Your task to perform on an android device: delete a single message in the gmail app Image 0: 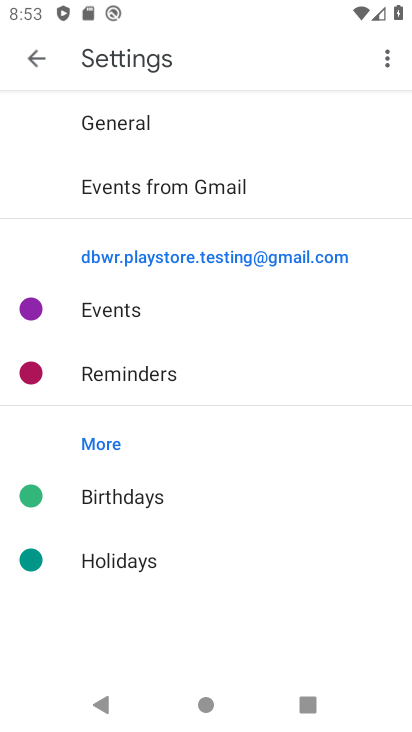
Step 0: press home button
Your task to perform on an android device: delete a single message in the gmail app Image 1: 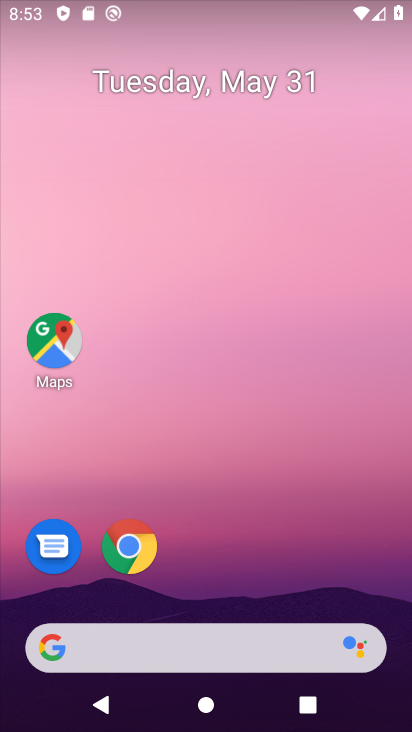
Step 1: drag from (395, 702) to (351, 85)
Your task to perform on an android device: delete a single message in the gmail app Image 2: 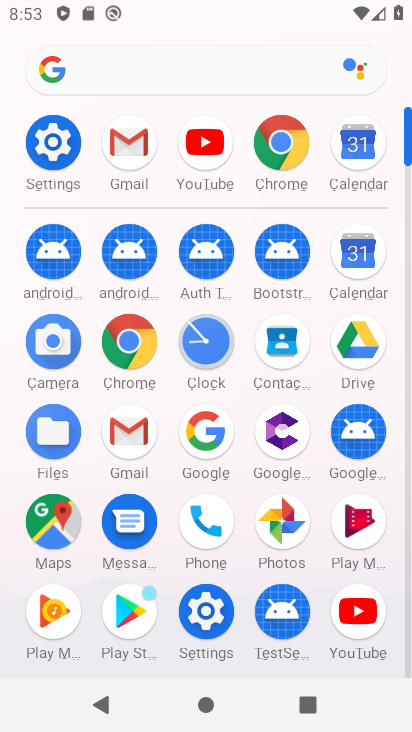
Step 2: click (121, 434)
Your task to perform on an android device: delete a single message in the gmail app Image 3: 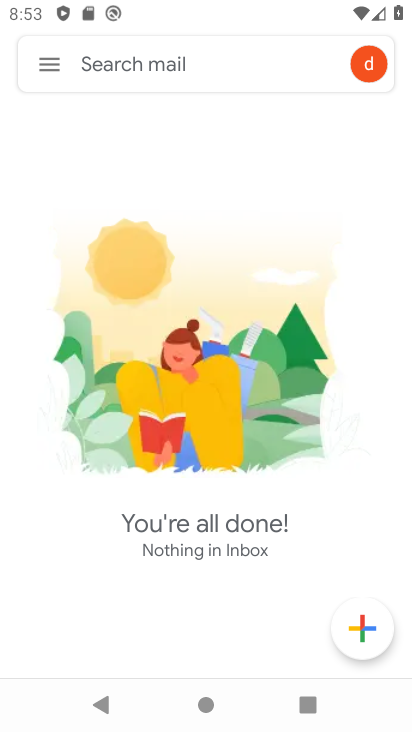
Step 3: click (50, 70)
Your task to perform on an android device: delete a single message in the gmail app Image 4: 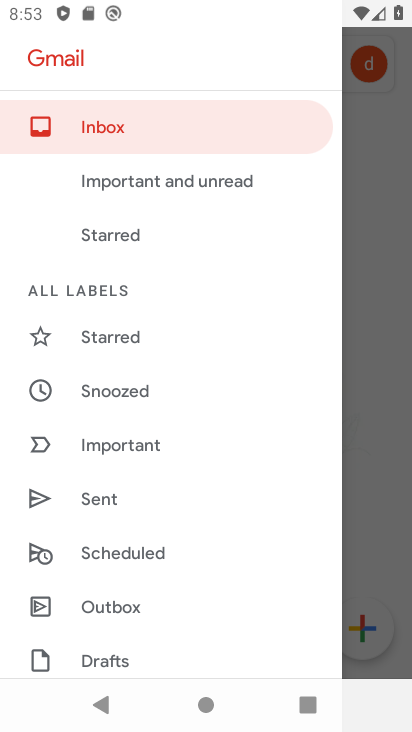
Step 4: click (93, 133)
Your task to perform on an android device: delete a single message in the gmail app Image 5: 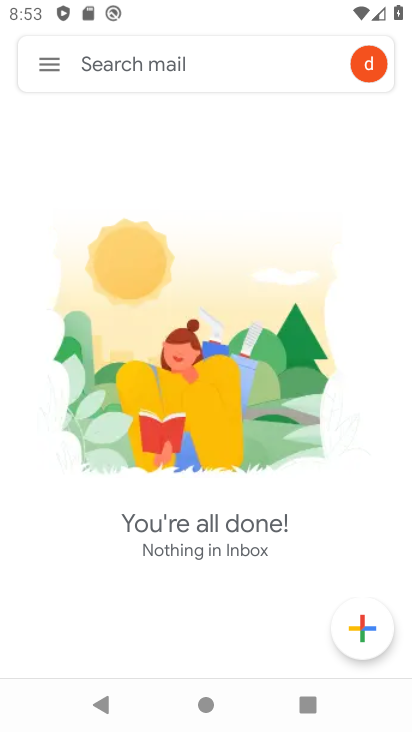
Step 5: click (50, 63)
Your task to perform on an android device: delete a single message in the gmail app Image 6: 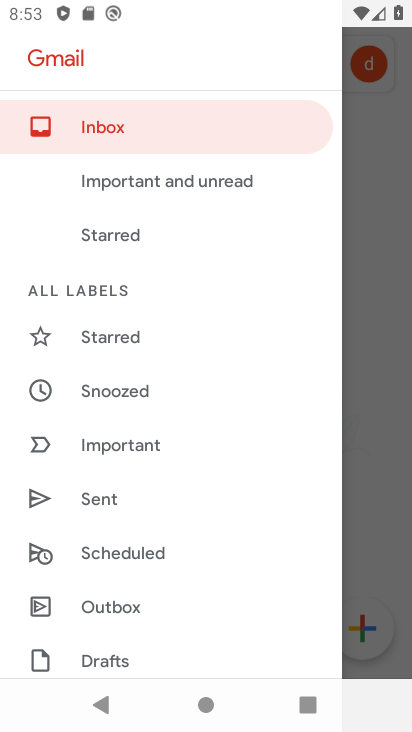
Step 6: click (103, 127)
Your task to perform on an android device: delete a single message in the gmail app Image 7: 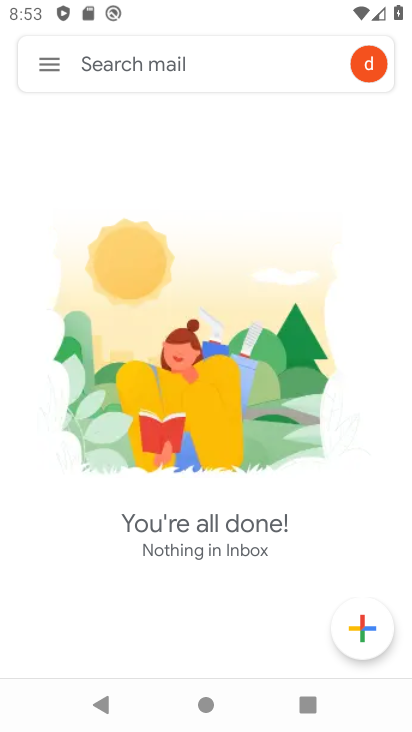
Step 7: task complete